Your task to perform on an android device: turn off location history Image 0: 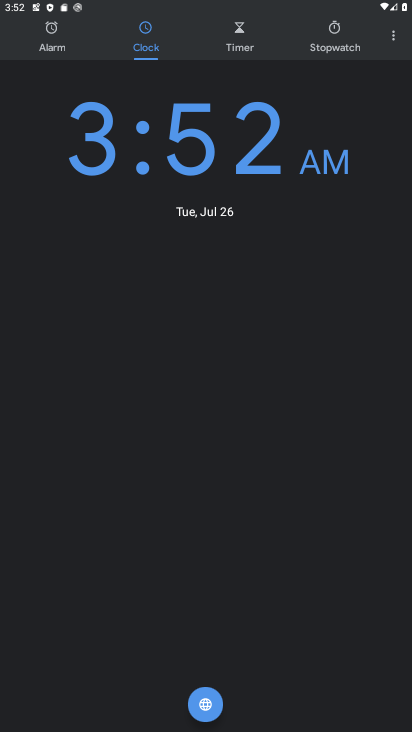
Step 0: press home button
Your task to perform on an android device: turn off location history Image 1: 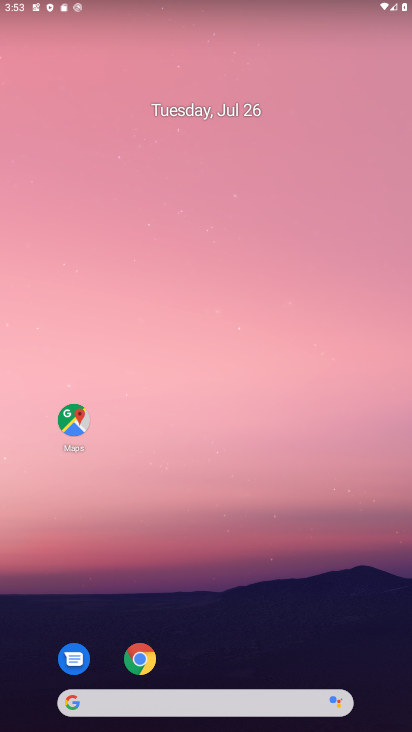
Step 1: drag from (307, 586) to (286, 5)
Your task to perform on an android device: turn off location history Image 2: 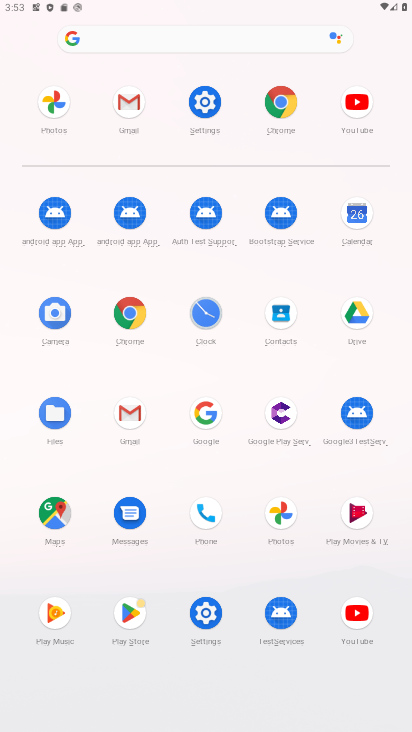
Step 2: click (206, 97)
Your task to perform on an android device: turn off location history Image 3: 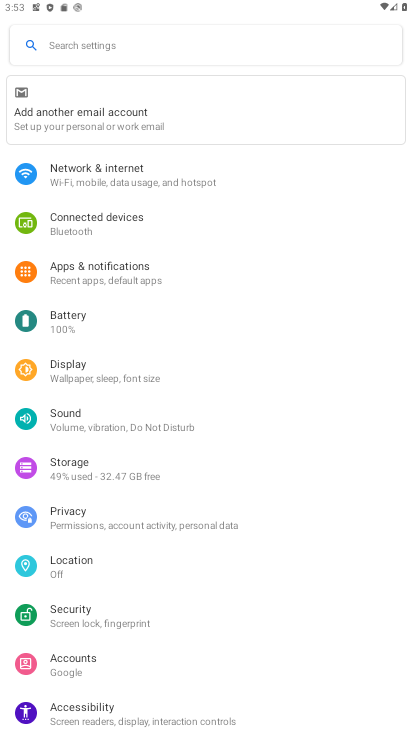
Step 3: click (124, 569)
Your task to perform on an android device: turn off location history Image 4: 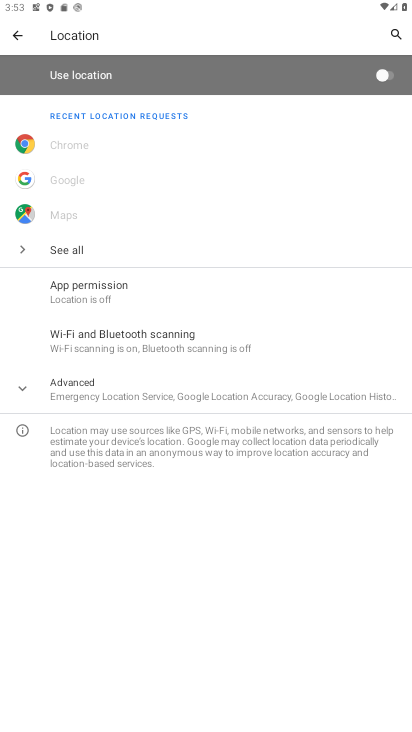
Step 4: click (170, 404)
Your task to perform on an android device: turn off location history Image 5: 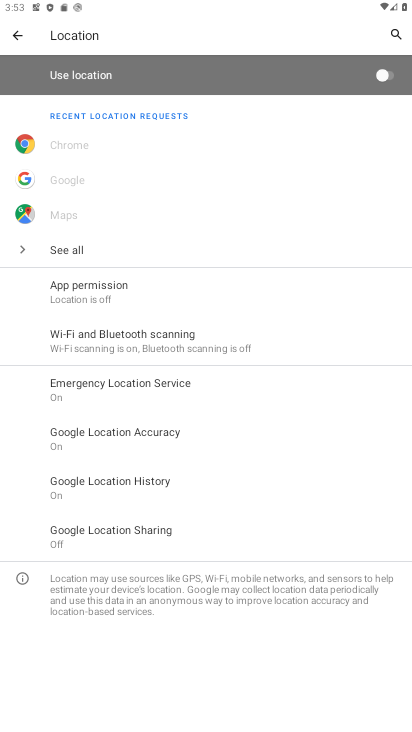
Step 5: click (98, 474)
Your task to perform on an android device: turn off location history Image 6: 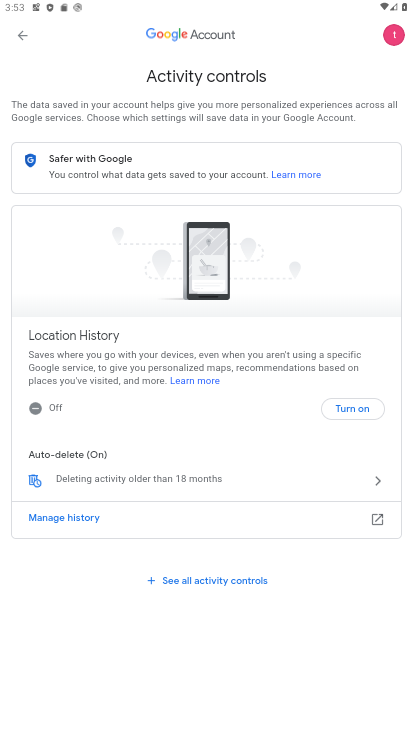
Step 6: task complete